Your task to perform on an android device: toggle location history Image 0: 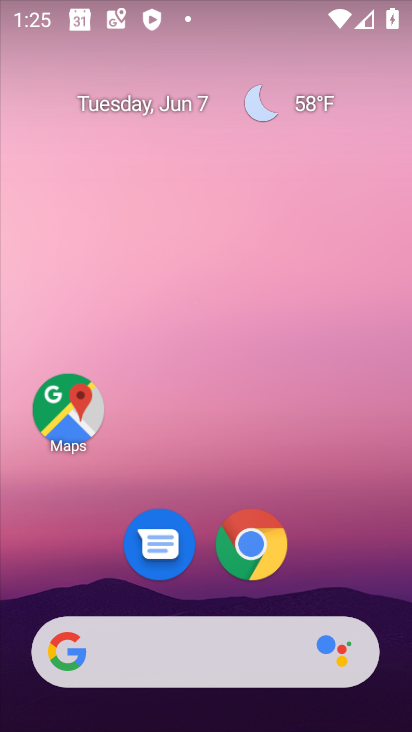
Step 0: drag from (189, 614) to (189, 31)
Your task to perform on an android device: toggle location history Image 1: 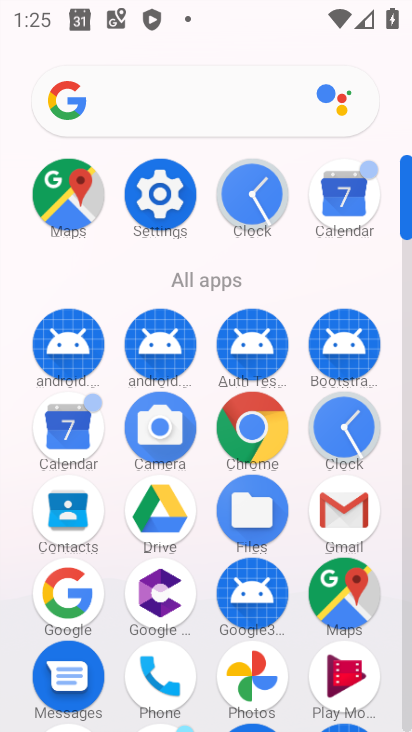
Step 1: click (158, 209)
Your task to perform on an android device: toggle location history Image 2: 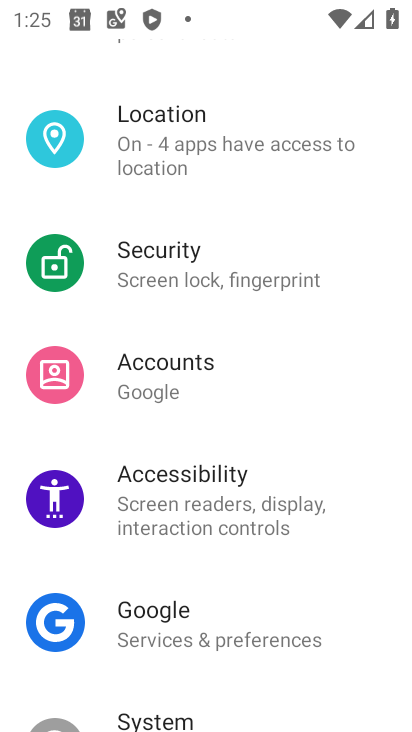
Step 2: click (141, 166)
Your task to perform on an android device: toggle location history Image 3: 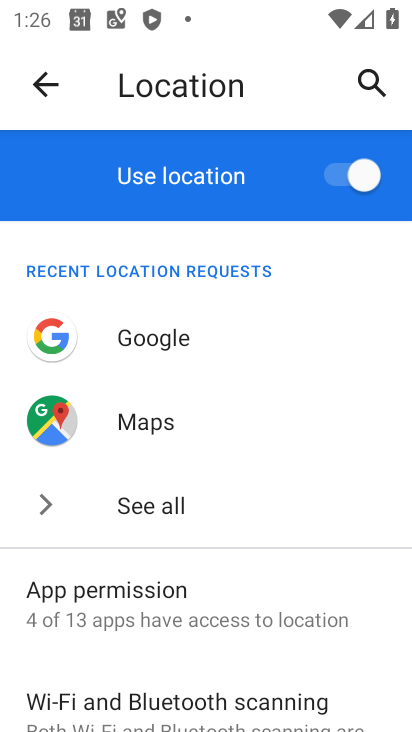
Step 3: drag from (239, 631) to (267, 141)
Your task to perform on an android device: toggle location history Image 4: 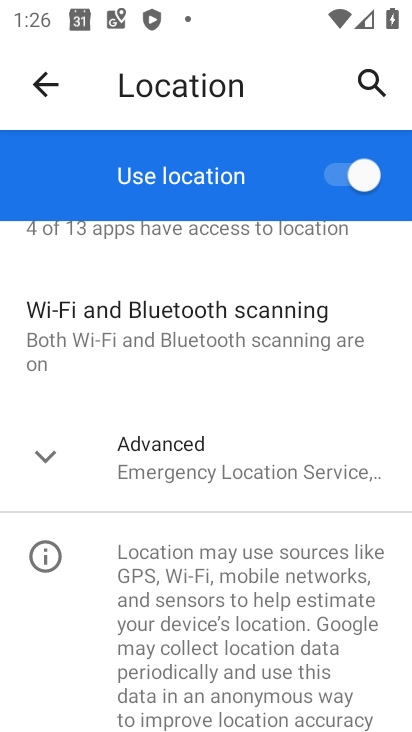
Step 4: click (197, 464)
Your task to perform on an android device: toggle location history Image 5: 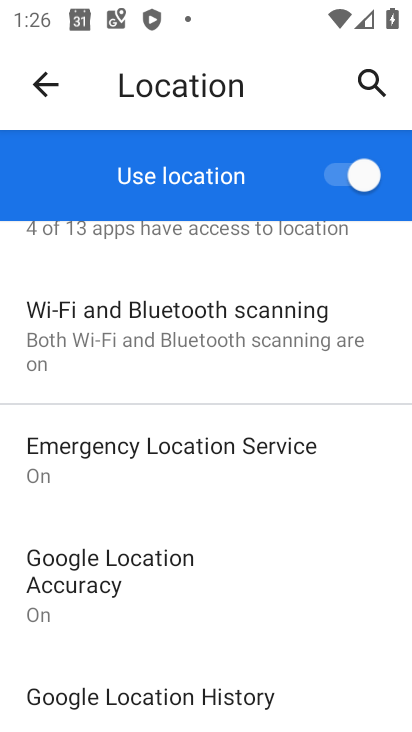
Step 5: click (195, 694)
Your task to perform on an android device: toggle location history Image 6: 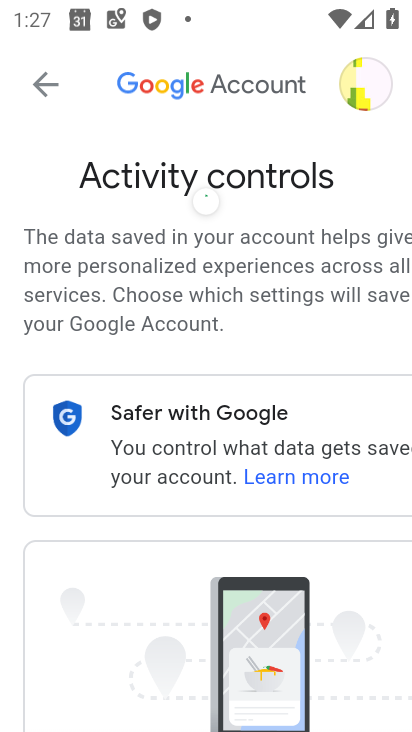
Step 6: drag from (253, 536) to (24, 16)
Your task to perform on an android device: toggle location history Image 7: 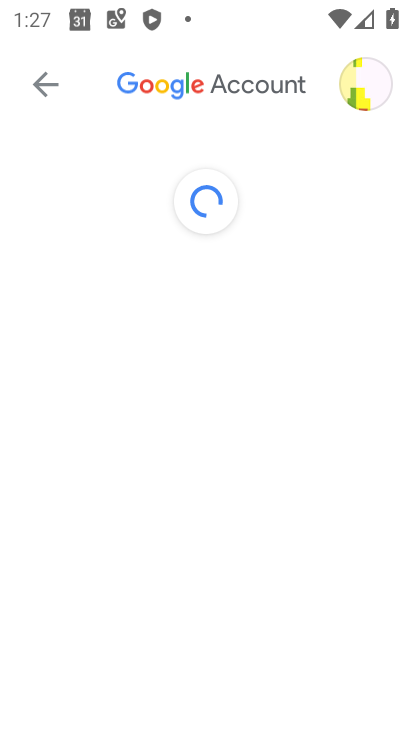
Step 7: click (272, 536)
Your task to perform on an android device: toggle location history Image 8: 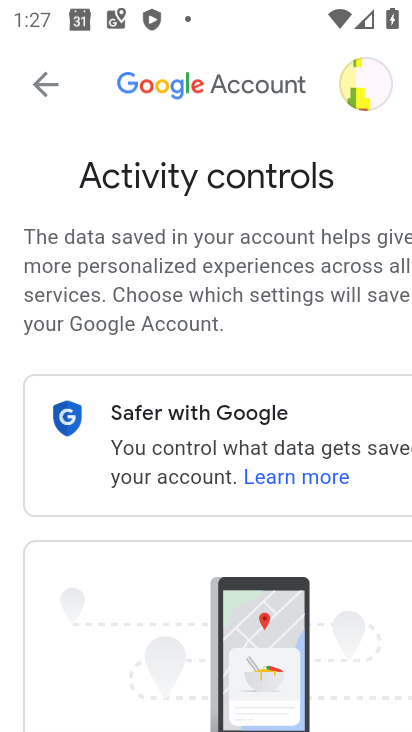
Step 8: drag from (272, 536) to (50, 48)
Your task to perform on an android device: toggle location history Image 9: 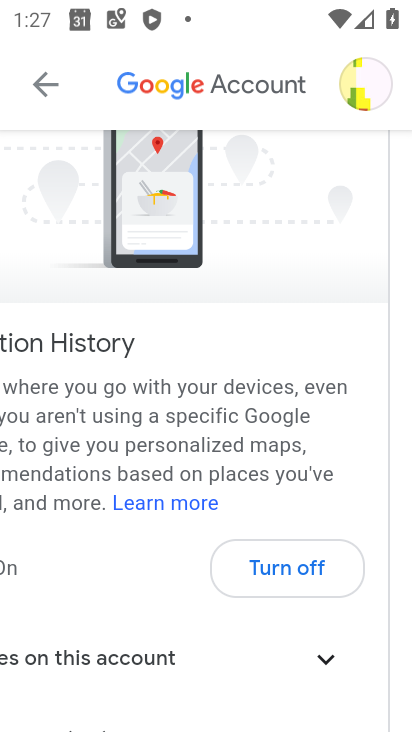
Step 9: click (300, 557)
Your task to perform on an android device: toggle location history Image 10: 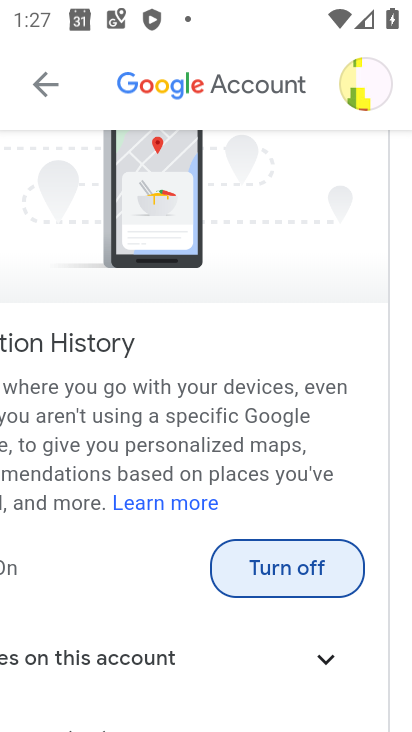
Step 10: click (277, 583)
Your task to perform on an android device: toggle location history Image 11: 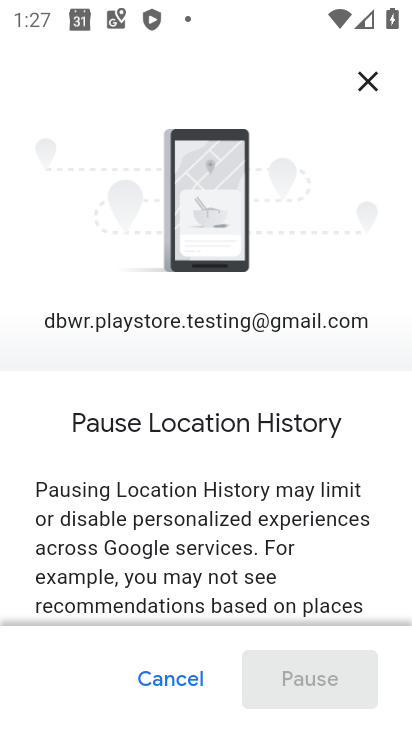
Step 11: drag from (293, 559) to (89, 16)
Your task to perform on an android device: toggle location history Image 12: 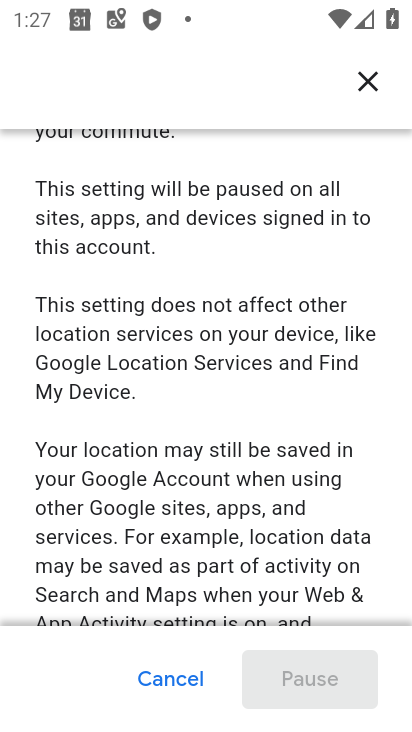
Step 12: drag from (299, 535) to (220, 52)
Your task to perform on an android device: toggle location history Image 13: 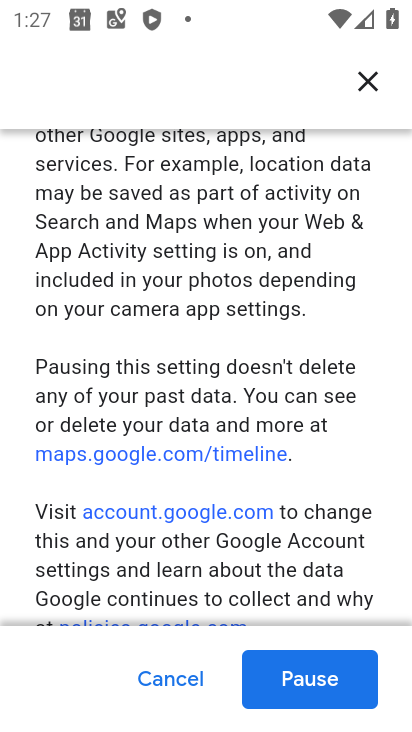
Step 13: click (349, 696)
Your task to perform on an android device: toggle location history Image 14: 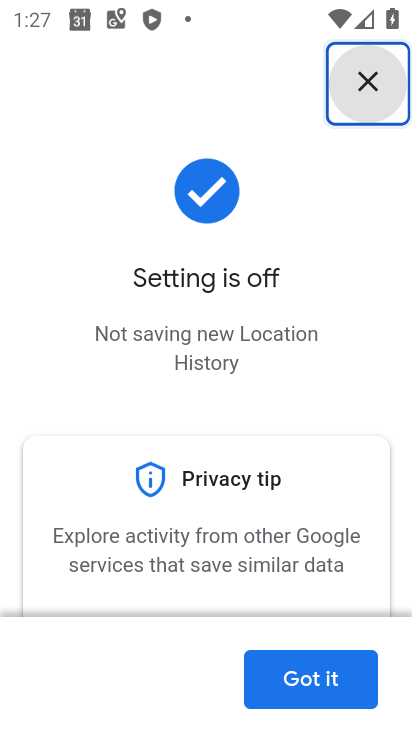
Step 14: click (369, 675)
Your task to perform on an android device: toggle location history Image 15: 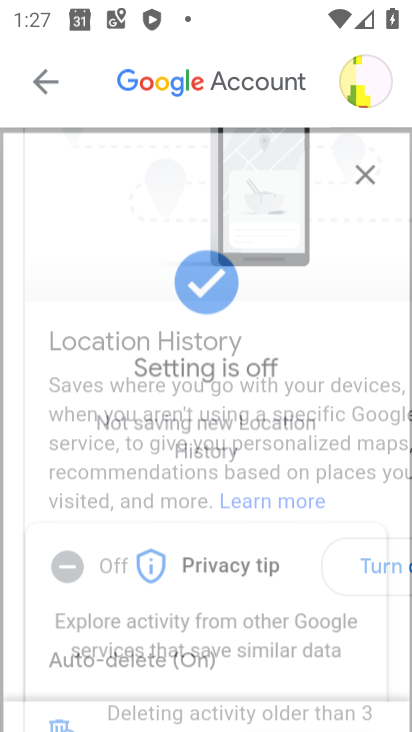
Step 15: task complete